Your task to perform on an android device: Show me productivity apps on the Play Store Image 0: 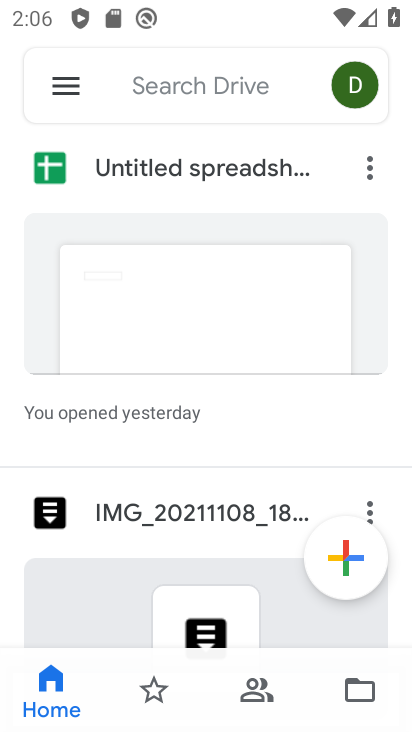
Step 0: press home button
Your task to perform on an android device: Show me productivity apps on the Play Store Image 1: 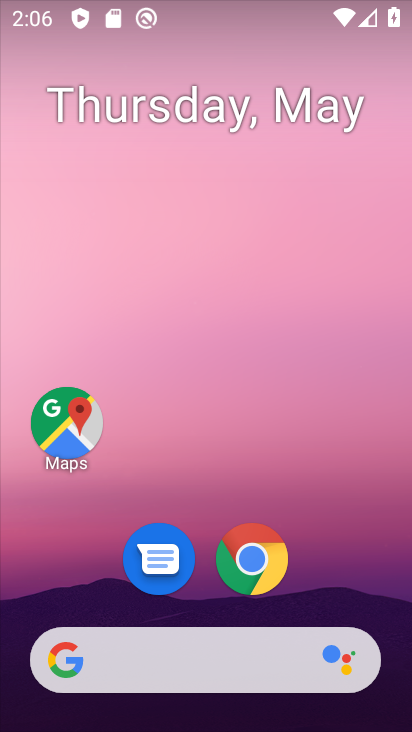
Step 1: drag from (202, 608) to (205, 236)
Your task to perform on an android device: Show me productivity apps on the Play Store Image 2: 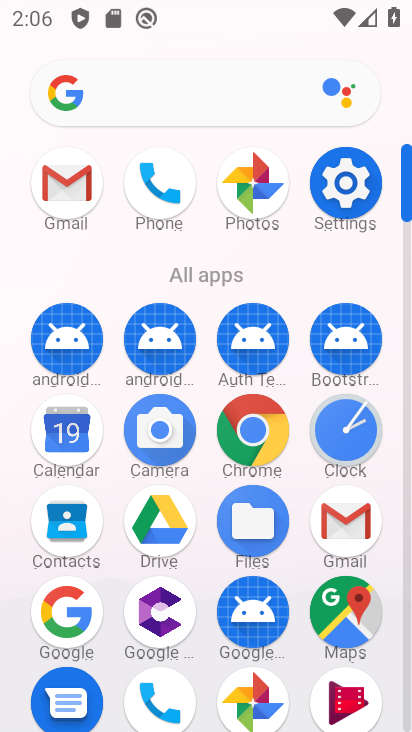
Step 2: drag from (284, 619) to (300, 302)
Your task to perform on an android device: Show me productivity apps on the Play Store Image 3: 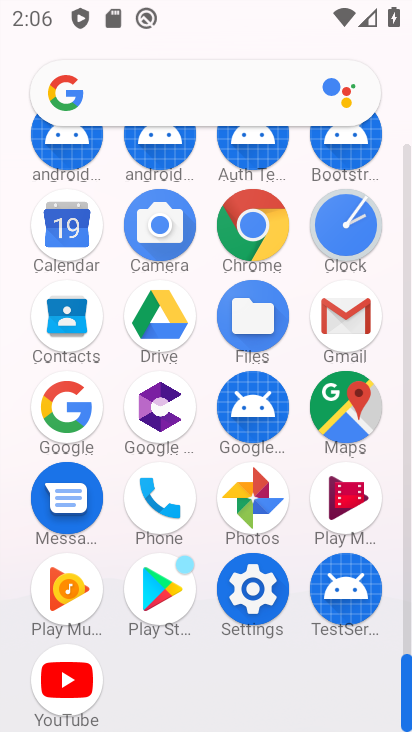
Step 3: click (152, 592)
Your task to perform on an android device: Show me productivity apps on the Play Store Image 4: 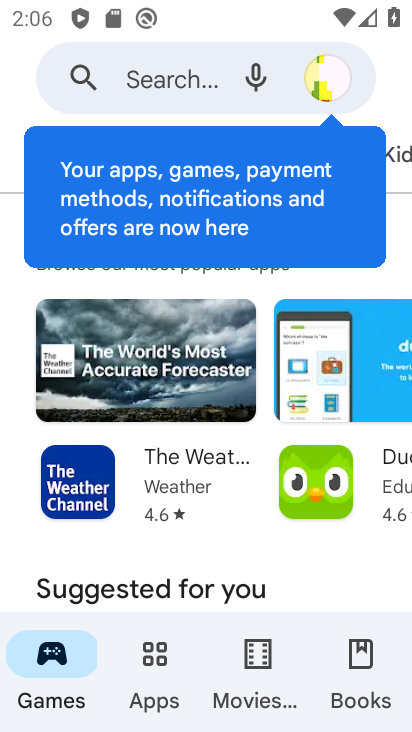
Step 4: click (152, 654)
Your task to perform on an android device: Show me productivity apps on the Play Store Image 5: 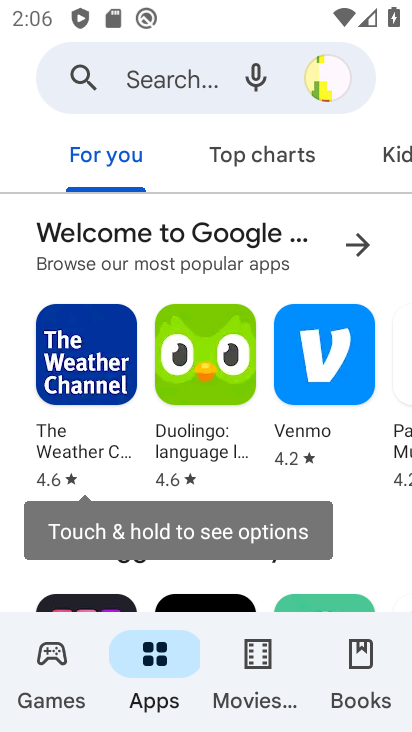
Step 5: drag from (306, 161) to (134, 156)
Your task to perform on an android device: Show me productivity apps on the Play Store Image 6: 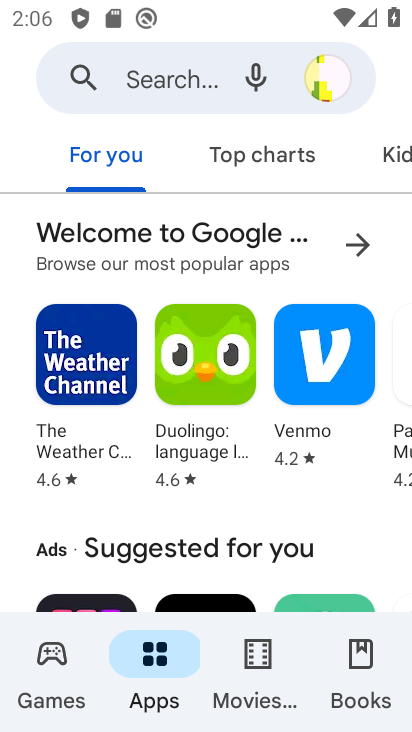
Step 6: drag from (271, 170) to (151, 177)
Your task to perform on an android device: Show me productivity apps on the Play Store Image 7: 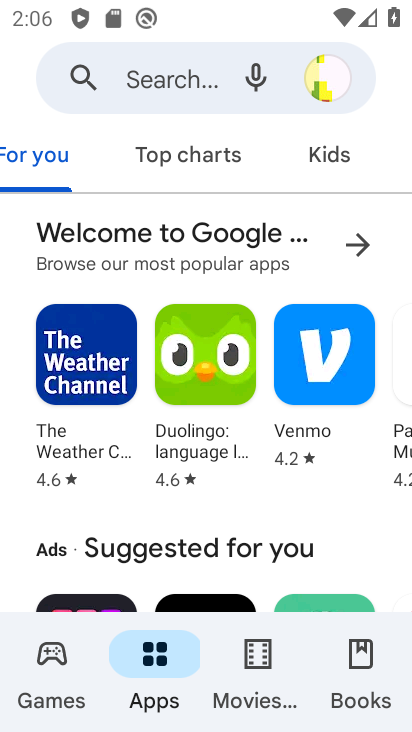
Step 7: drag from (293, 155) to (153, 164)
Your task to perform on an android device: Show me productivity apps on the Play Store Image 8: 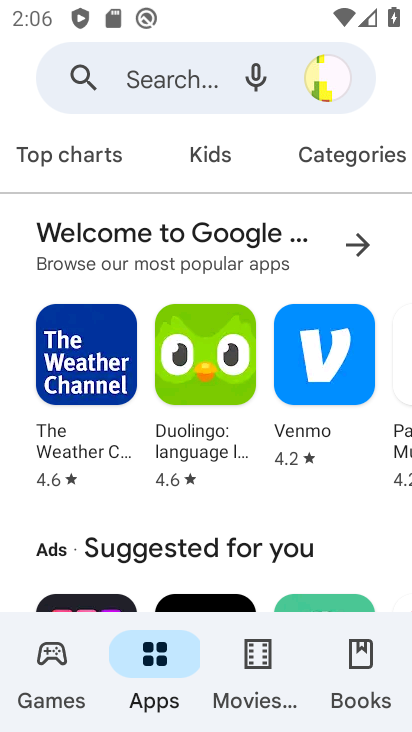
Step 8: click (332, 161)
Your task to perform on an android device: Show me productivity apps on the Play Store Image 9: 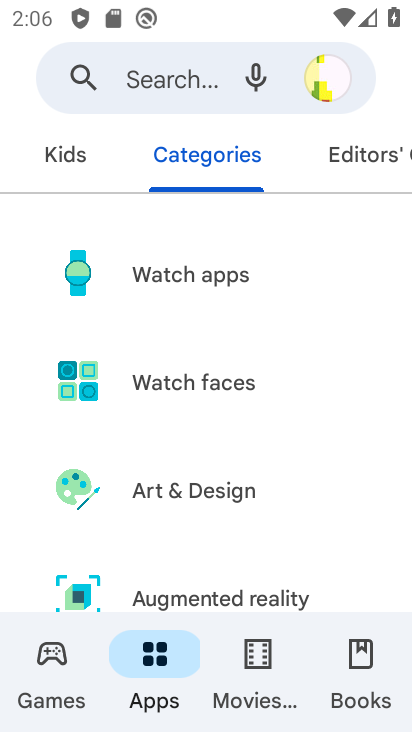
Step 9: drag from (279, 536) to (289, 274)
Your task to perform on an android device: Show me productivity apps on the Play Store Image 10: 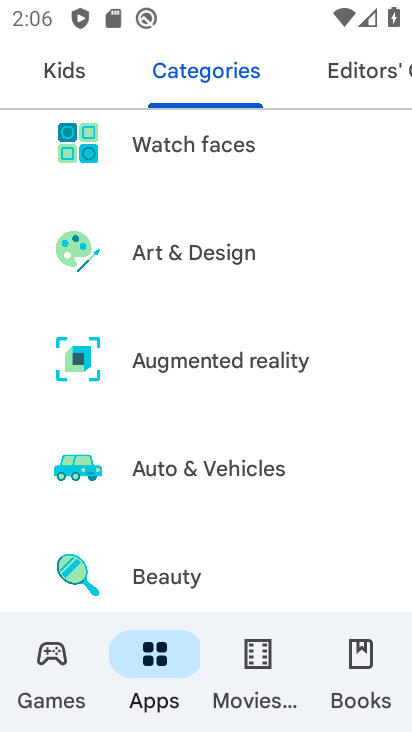
Step 10: drag from (275, 508) to (253, 268)
Your task to perform on an android device: Show me productivity apps on the Play Store Image 11: 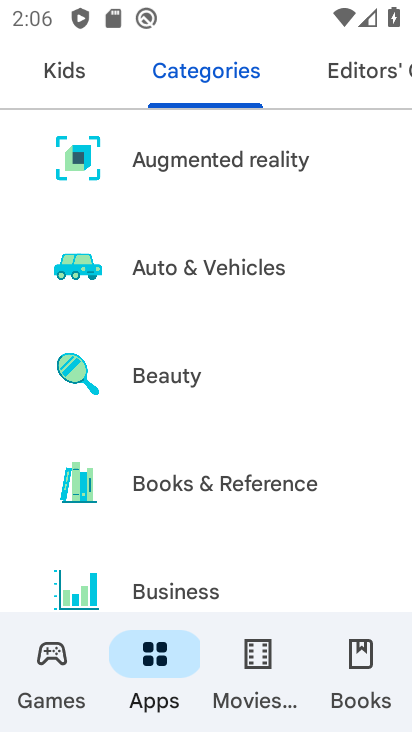
Step 11: drag from (250, 492) to (263, 307)
Your task to perform on an android device: Show me productivity apps on the Play Store Image 12: 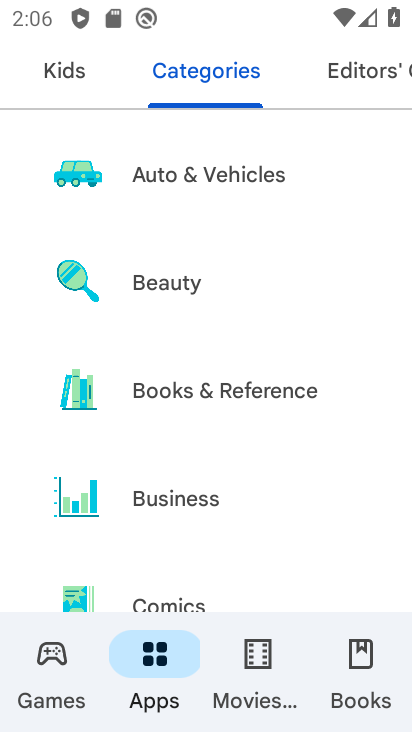
Step 12: drag from (253, 526) to (271, 308)
Your task to perform on an android device: Show me productivity apps on the Play Store Image 13: 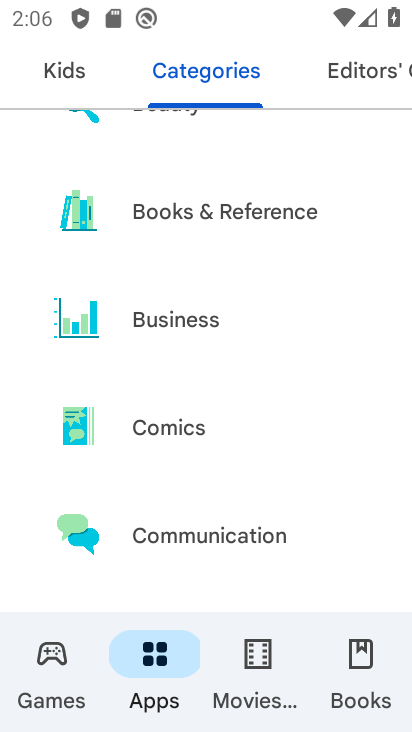
Step 13: drag from (252, 528) to (250, 294)
Your task to perform on an android device: Show me productivity apps on the Play Store Image 14: 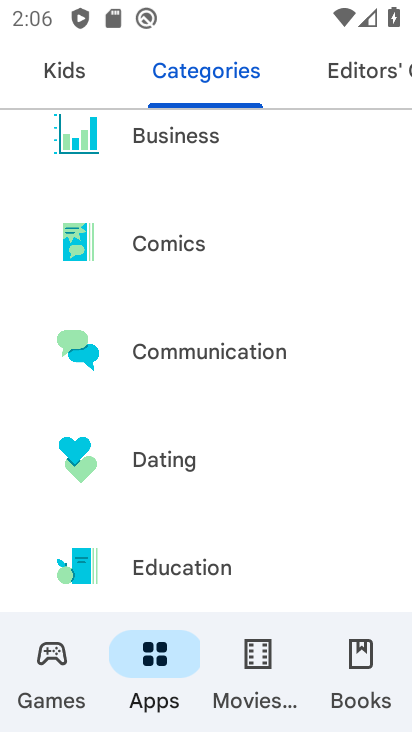
Step 14: drag from (250, 487) to (255, 297)
Your task to perform on an android device: Show me productivity apps on the Play Store Image 15: 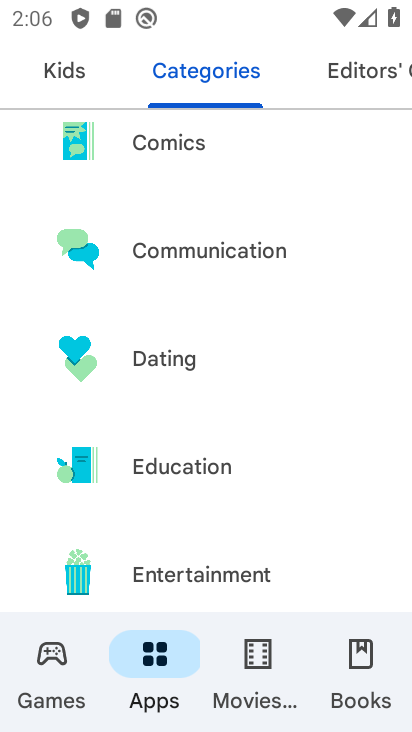
Step 15: drag from (243, 534) to (225, 285)
Your task to perform on an android device: Show me productivity apps on the Play Store Image 16: 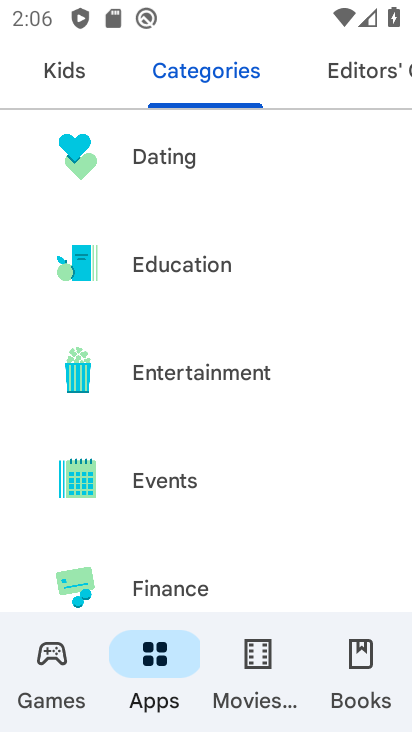
Step 16: click (226, 464)
Your task to perform on an android device: Show me productivity apps on the Play Store Image 17: 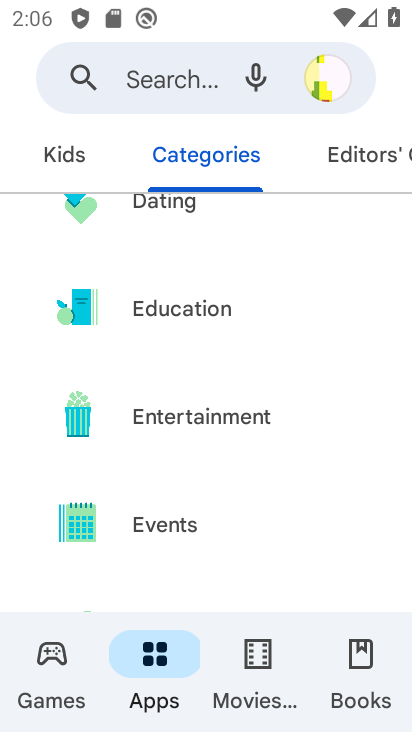
Step 17: drag from (245, 275) to (245, 527)
Your task to perform on an android device: Show me productivity apps on the Play Store Image 18: 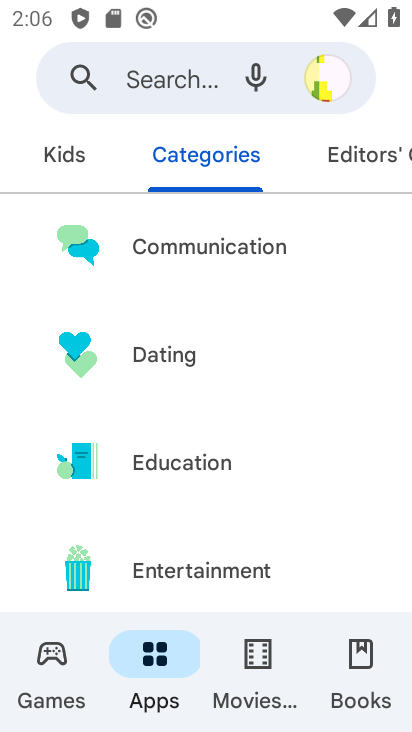
Step 18: drag from (243, 342) to (243, 527)
Your task to perform on an android device: Show me productivity apps on the Play Store Image 19: 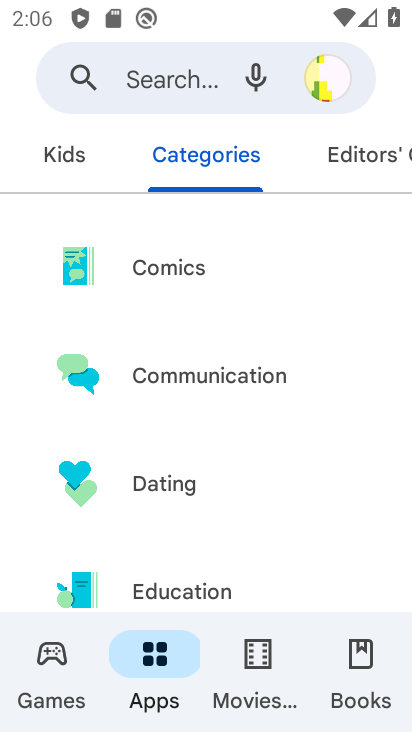
Step 19: drag from (255, 324) to (277, 451)
Your task to perform on an android device: Show me productivity apps on the Play Store Image 20: 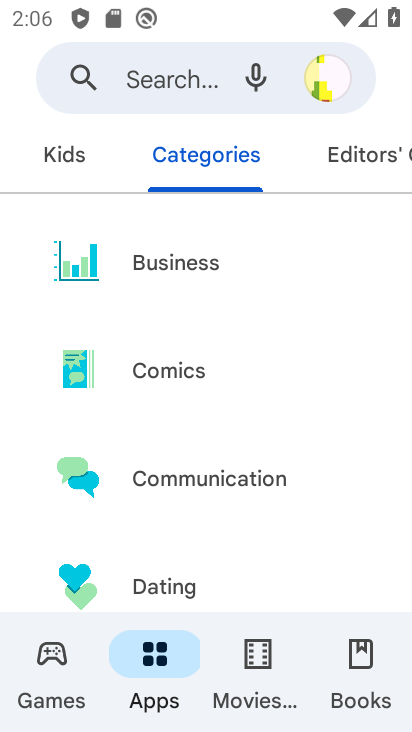
Step 20: drag from (277, 303) to (289, 455)
Your task to perform on an android device: Show me productivity apps on the Play Store Image 21: 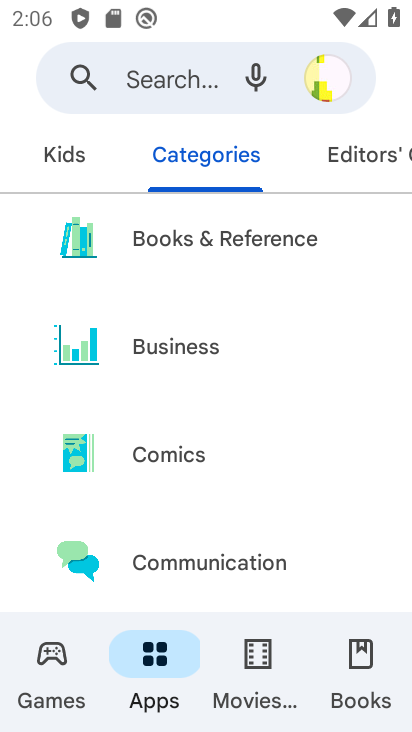
Step 21: click (263, 291)
Your task to perform on an android device: Show me productivity apps on the Play Store Image 22: 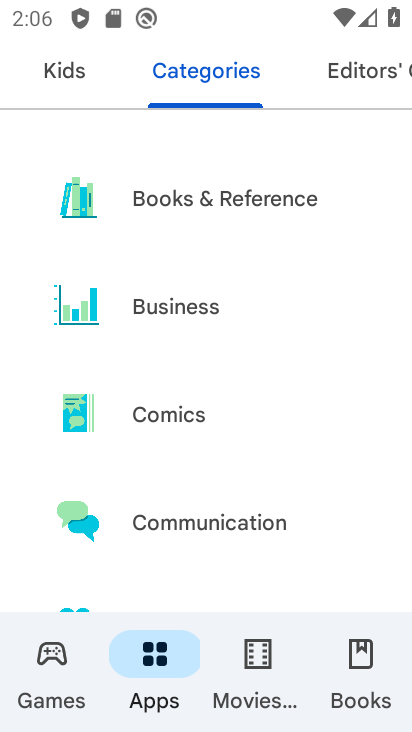
Step 22: drag from (244, 490) to (252, 323)
Your task to perform on an android device: Show me productivity apps on the Play Store Image 23: 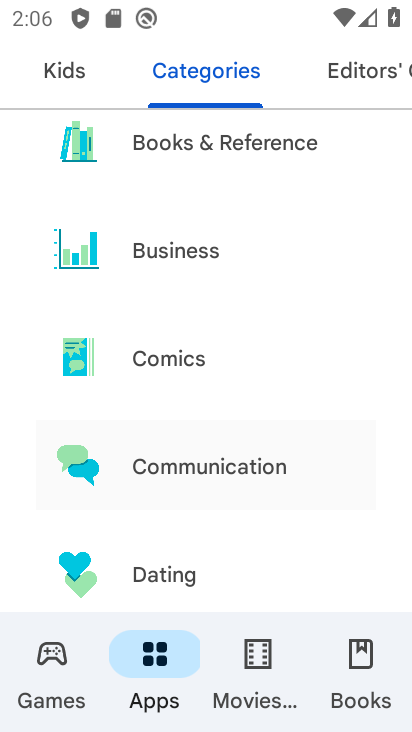
Step 23: drag from (227, 493) to (227, 269)
Your task to perform on an android device: Show me productivity apps on the Play Store Image 24: 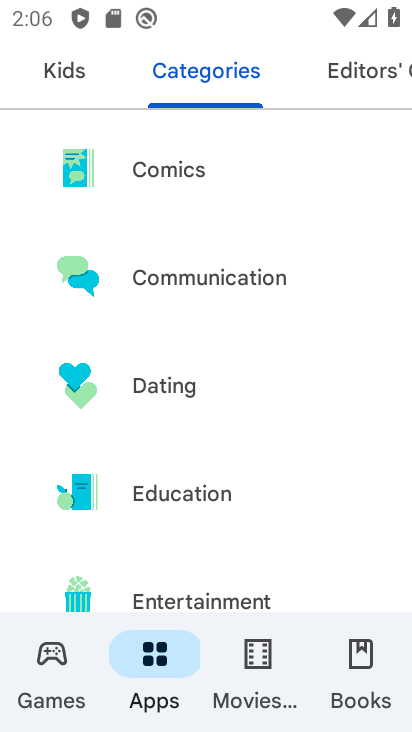
Step 24: drag from (228, 465) to (228, 275)
Your task to perform on an android device: Show me productivity apps on the Play Store Image 25: 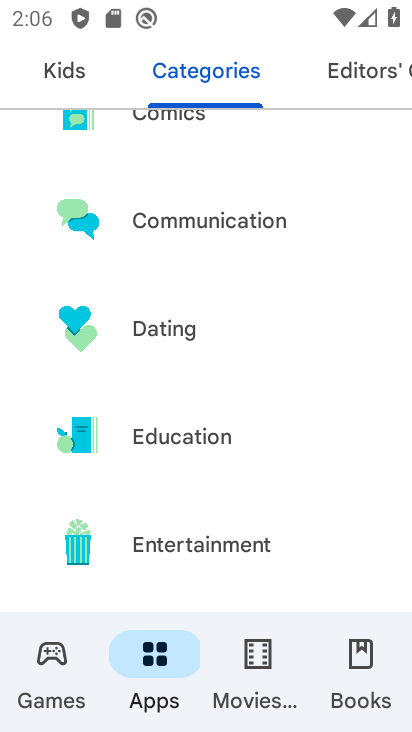
Step 25: drag from (238, 522) to (252, 312)
Your task to perform on an android device: Show me productivity apps on the Play Store Image 26: 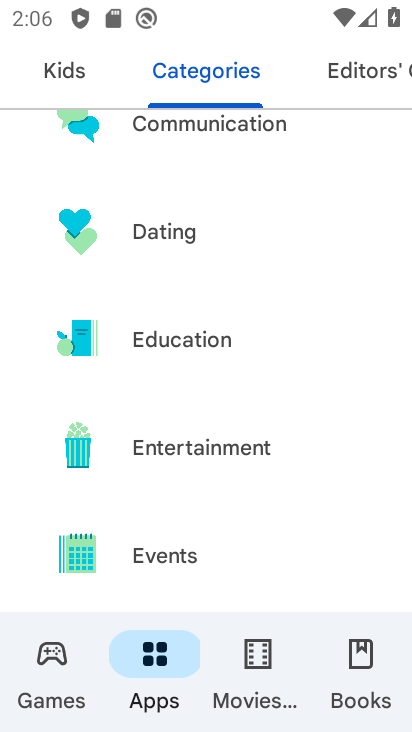
Step 26: drag from (228, 478) to (250, 249)
Your task to perform on an android device: Show me productivity apps on the Play Store Image 27: 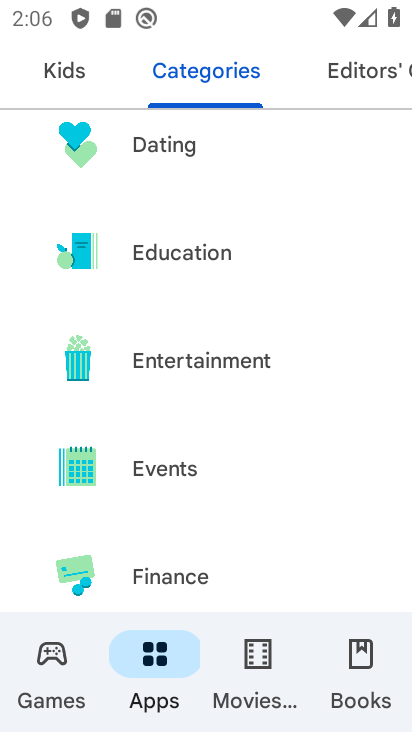
Step 27: drag from (244, 510) to (261, 290)
Your task to perform on an android device: Show me productivity apps on the Play Store Image 28: 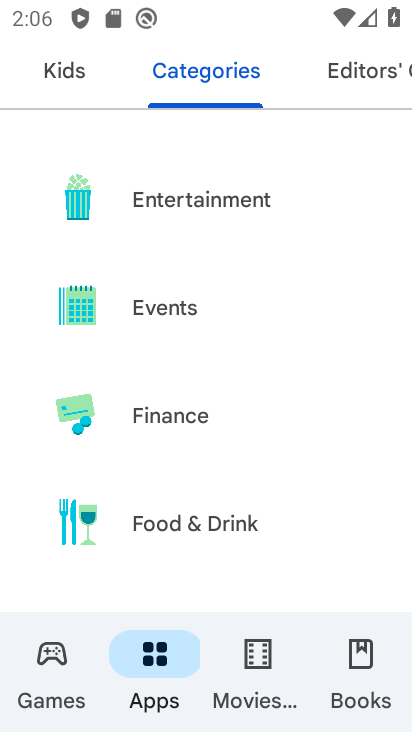
Step 28: drag from (252, 525) to (264, 341)
Your task to perform on an android device: Show me productivity apps on the Play Store Image 29: 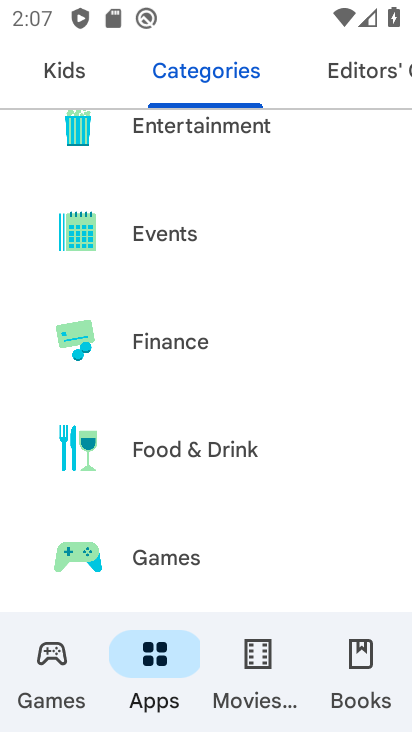
Step 29: drag from (240, 515) to (262, 301)
Your task to perform on an android device: Show me productivity apps on the Play Store Image 30: 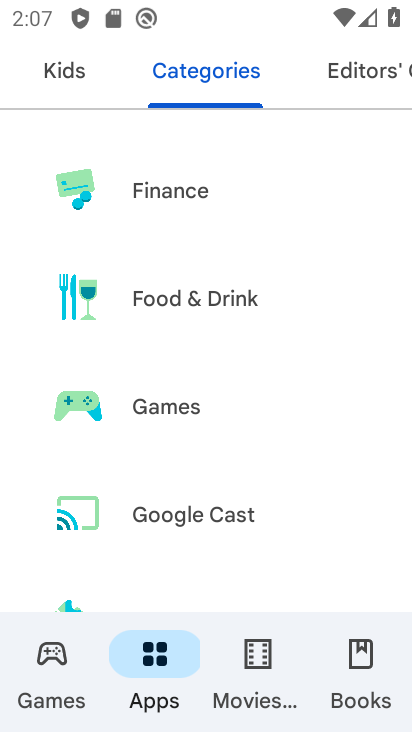
Step 30: drag from (262, 483) to (271, 229)
Your task to perform on an android device: Show me productivity apps on the Play Store Image 31: 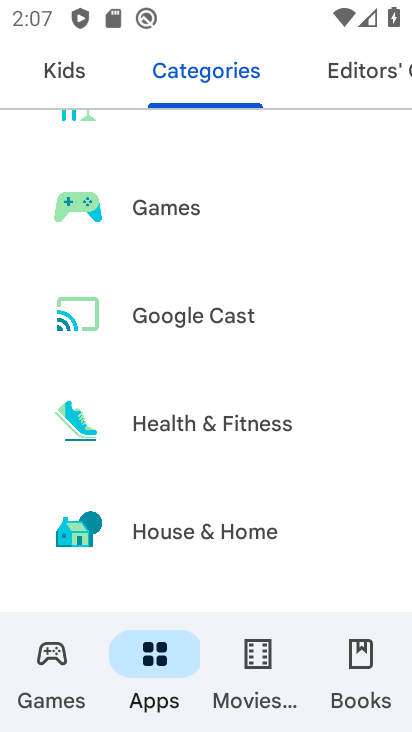
Step 31: drag from (255, 518) to (295, 247)
Your task to perform on an android device: Show me productivity apps on the Play Store Image 32: 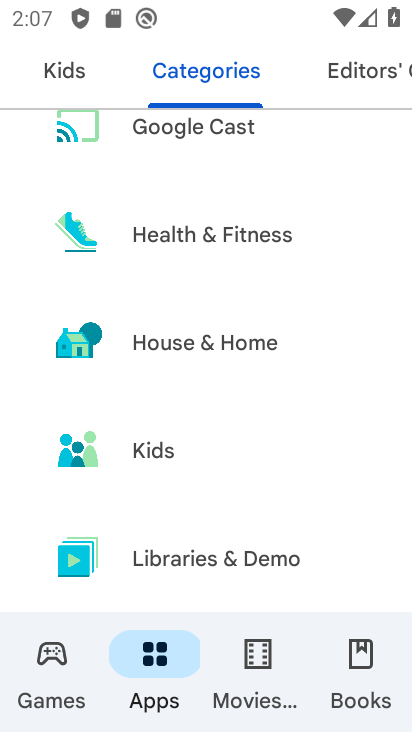
Step 32: drag from (297, 424) to (295, 287)
Your task to perform on an android device: Show me productivity apps on the Play Store Image 33: 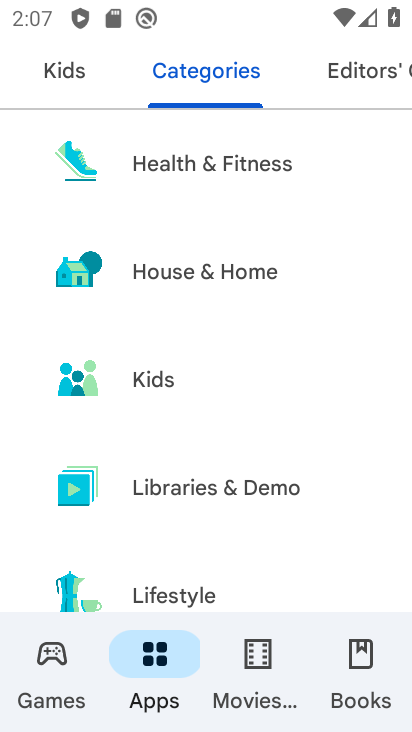
Step 33: drag from (276, 504) to (282, 334)
Your task to perform on an android device: Show me productivity apps on the Play Store Image 34: 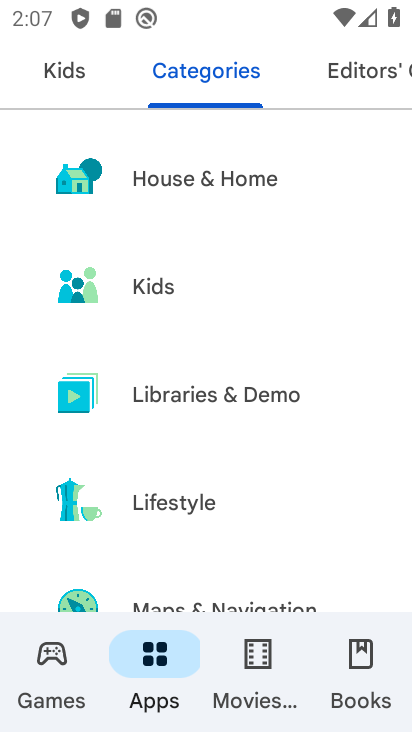
Step 34: drag from (258, 514) to (286, 272)
Your task to perform on an android device: Show me productivity apps on the Play Store Image 35: 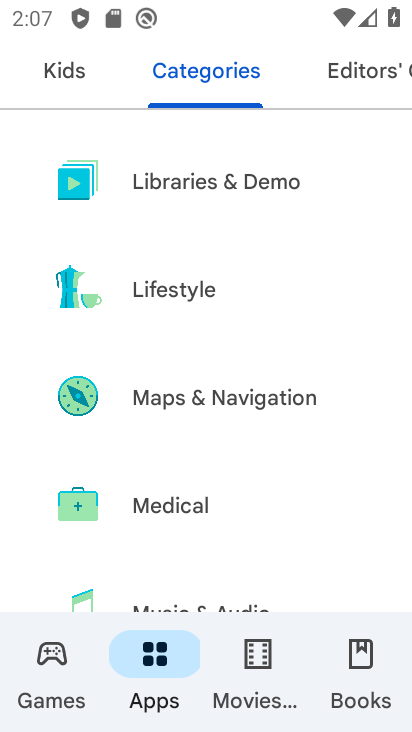
Step 35: drag from (265, 522) to (265, 290)
Your task to perform on an android device: Show me productivity apps on the Play Store Image 36: 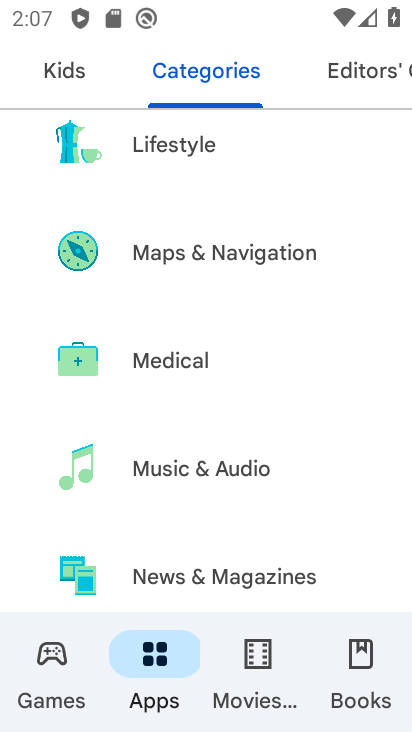
Step 36: drag from (285, 471) to (285, 248)
Your task to perform on an android device: Show me productivity apps on the Play Store Image 37: 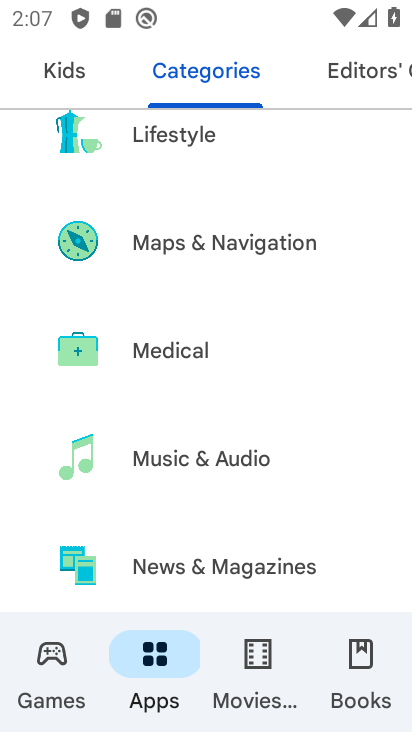
Step 37: drag from (292, 468) to (298, 213)
Your task to perform on an android device: Show me productivity apps on the Play Store Image 38: 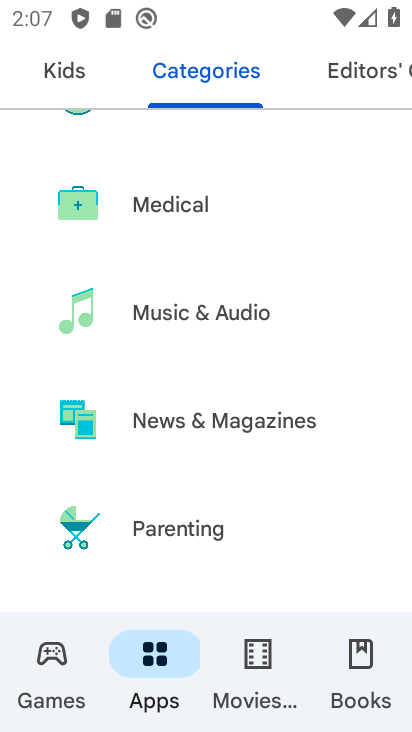
Step 38: drag from (256, 515) to (267, 300)
Your task to perform on an android device: Show me productivity apps on the Play Store Image 39: 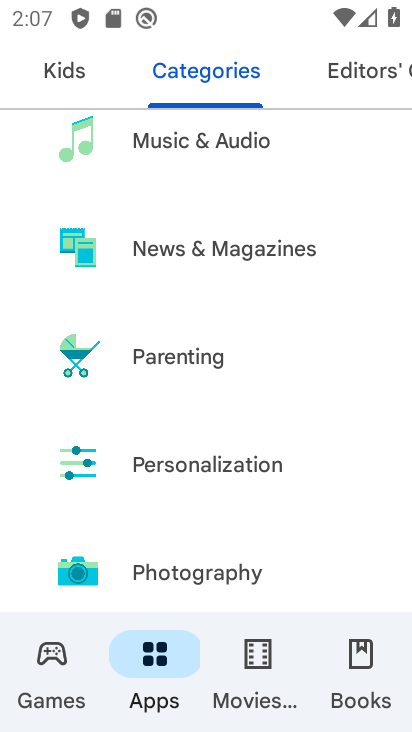
Step 39: drag from (228, 563) to (262, 345)
Your task to perform on an android device: Show me productivity apps on the Play Store Image 40: 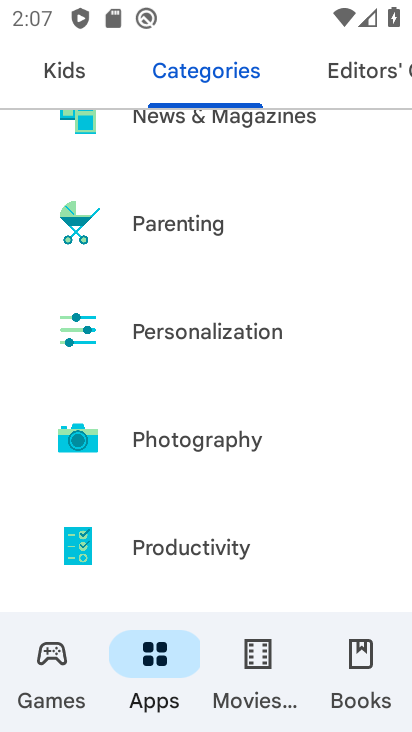
Step 40: click (214, 545)
Your task to perform on an android device: Show me productivity apps on the Play Store Image 41: 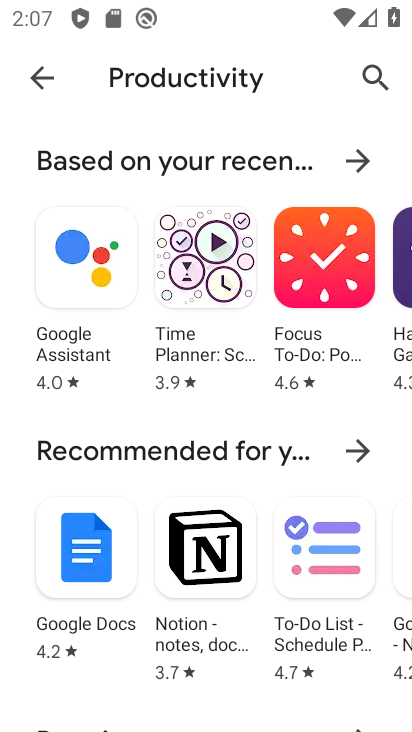
Step 41: task complete